Your task to perform on an android device: Open display settings Image 0: 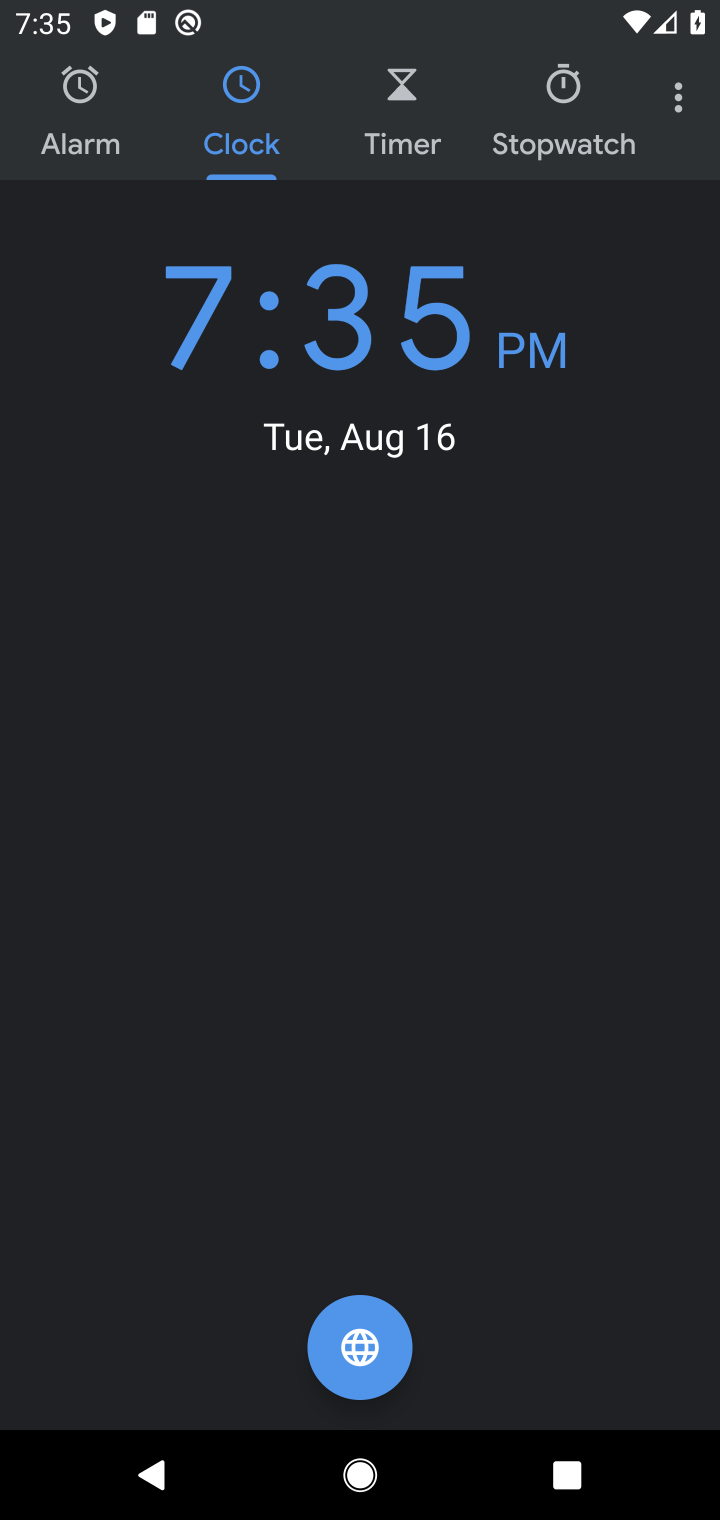
Step 0: press home button
Your task to perform on an android device: Open display settings Image 1: 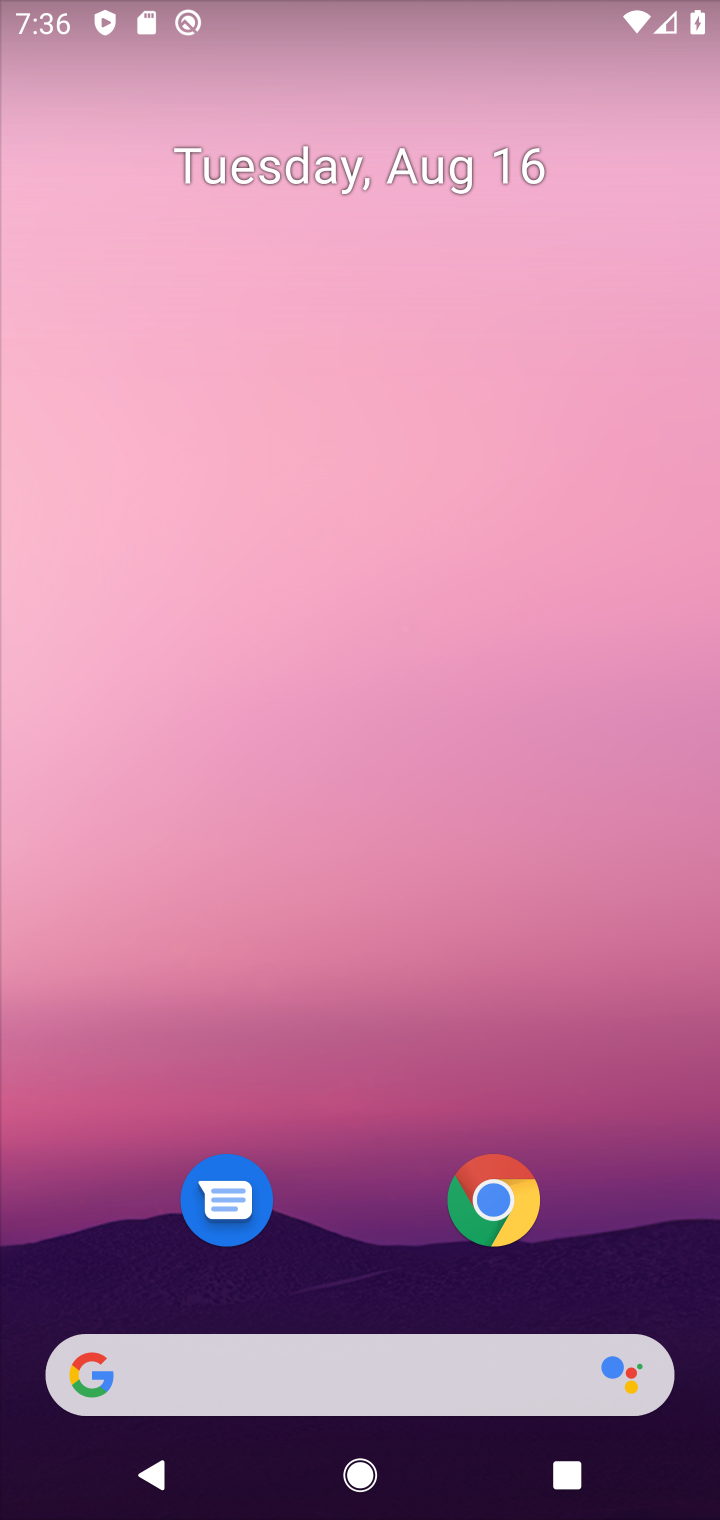
Step 1: task complete